Your task to perform on an android device: set an alarm Image 0: 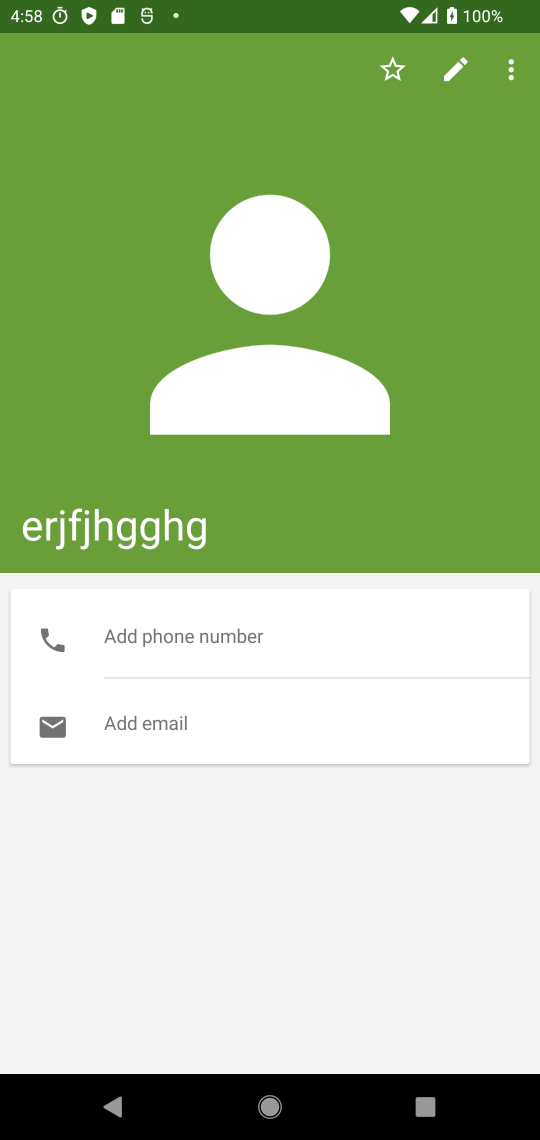
Step 0: press home button
Your task to perform on an android device: set an alarm Image 1: 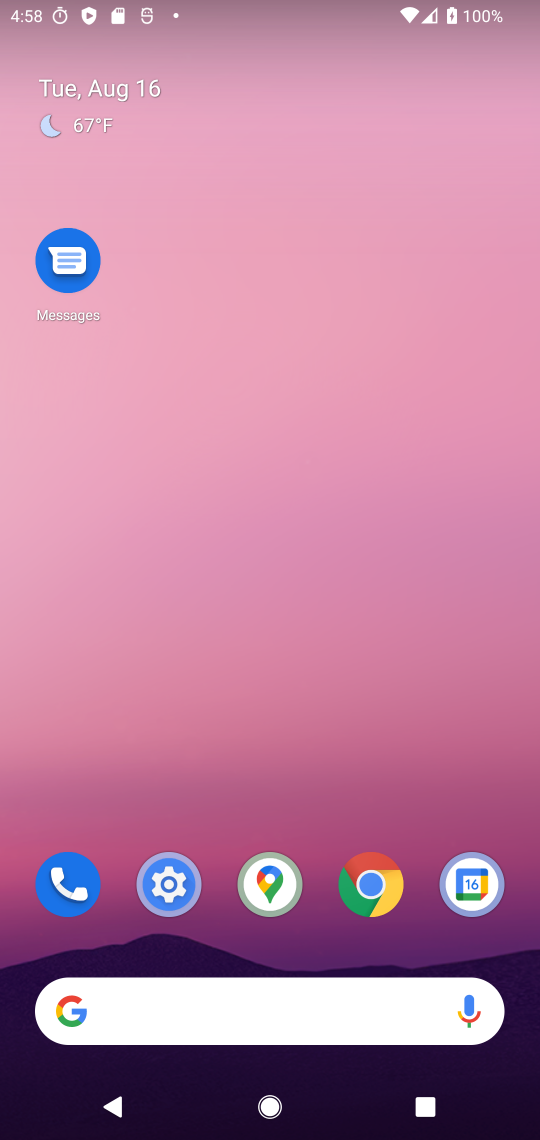
Step 1: drag from (26, 1073) to (317, 314)
Your task to perform on an android device: set an alarm Image 2: 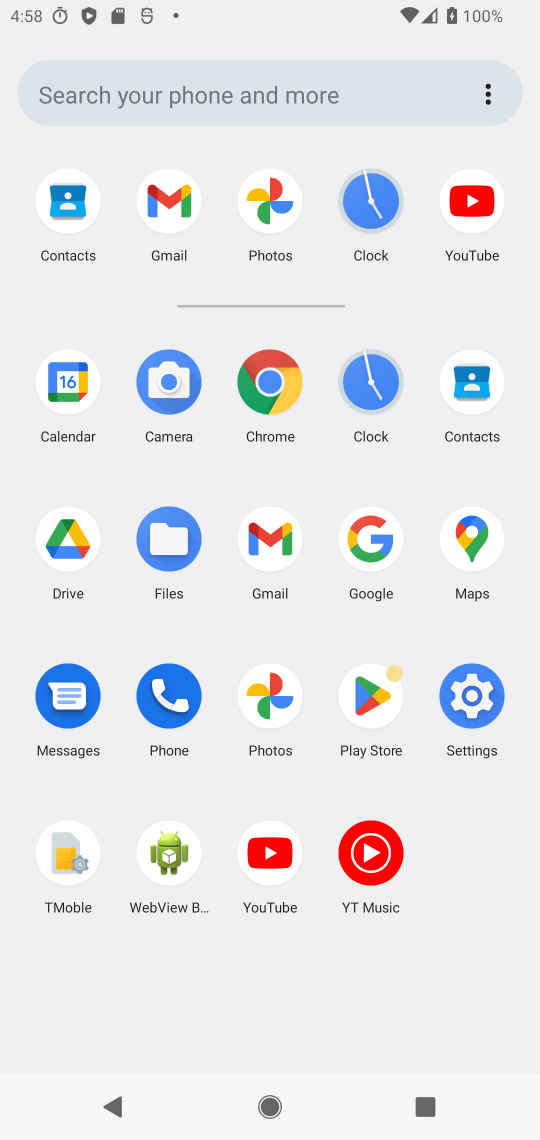
Step 2: click (382, 399)
Your task to perform on an android device: set an alarm Image 3: 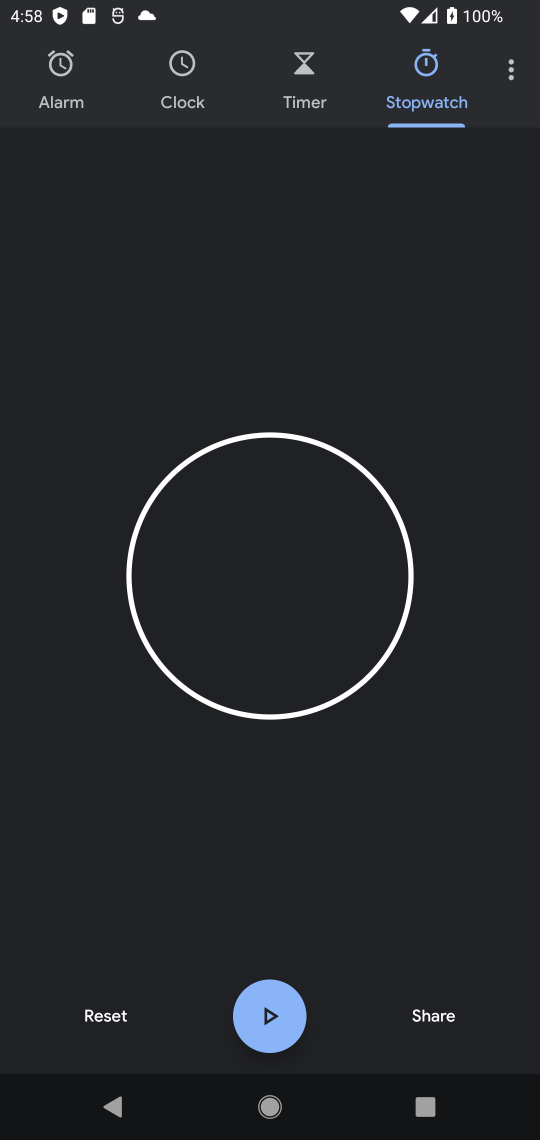
Step 3: click (67, 103)
Your task to perform on an android device: set an alarm Image 4: 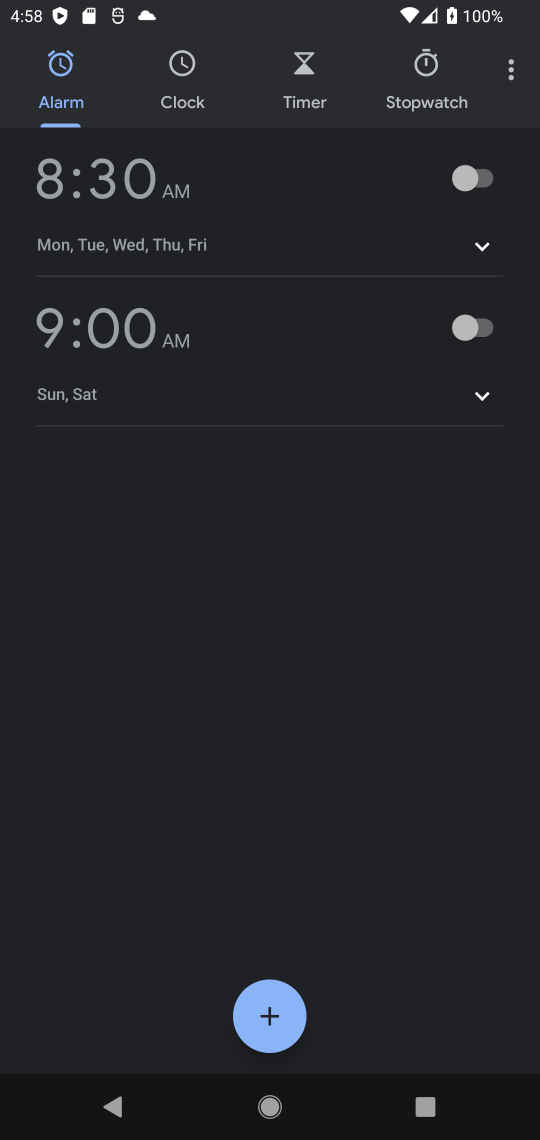
Step 4: click (473, 191)
Your task to perform on an android device: set an alarm Image 5: 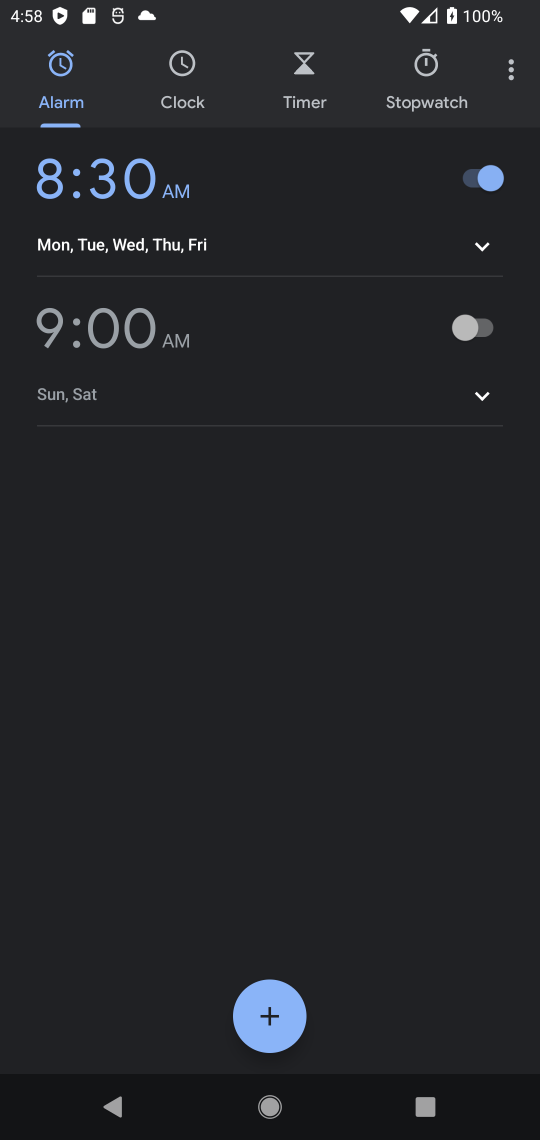
Step 5: task complete